Your task to perform on an android device: change the clock display to digital Image 0: 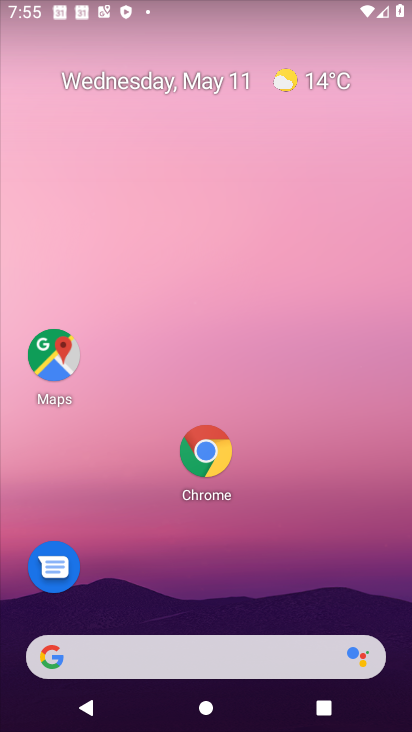
Step 0: drag from (169, 654) to (271, 161)
Your task to perform on an android device: change the clock display to digital Image 1: 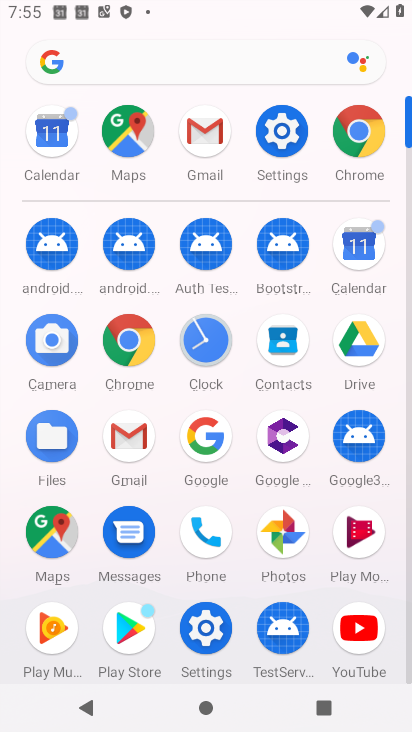
Step 1: click (212, 350)
Your task to perform on an android device: change the clock display to digital Image 2: 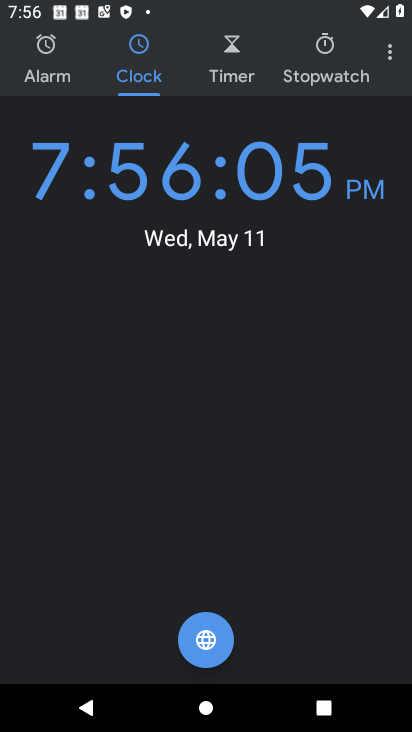
Step 2: click (392, 53)
Your task to perform on an android device: change the clock display to digital Image 3: 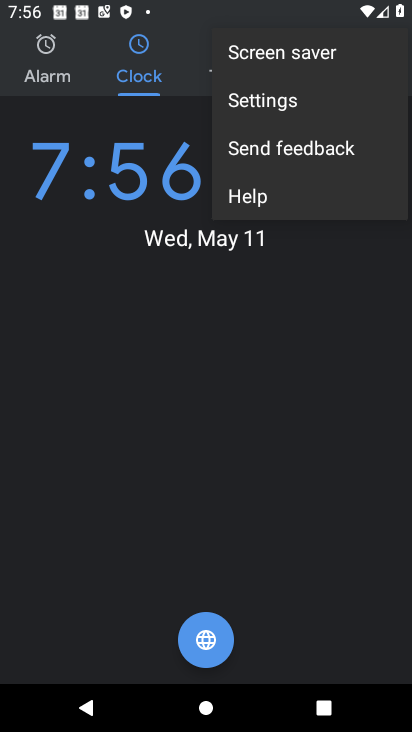
Step 3: click (268, 103)
Your task to perform on an android device: change the clock display to digital Image 4: 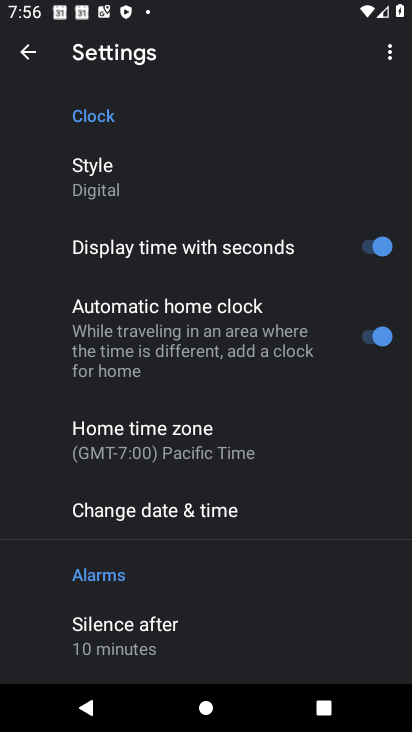
Step 4: task complete